Your task to perform on an android device: search for starred emails in the gmail app Image 0: 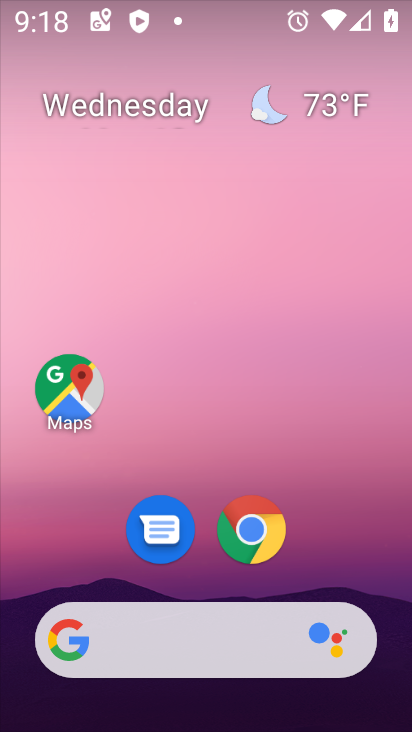
Step 0: drag from (401, 576) to (381, 357)
Your task to perform on an android device: search for starred emails in the gmail app Image 1: 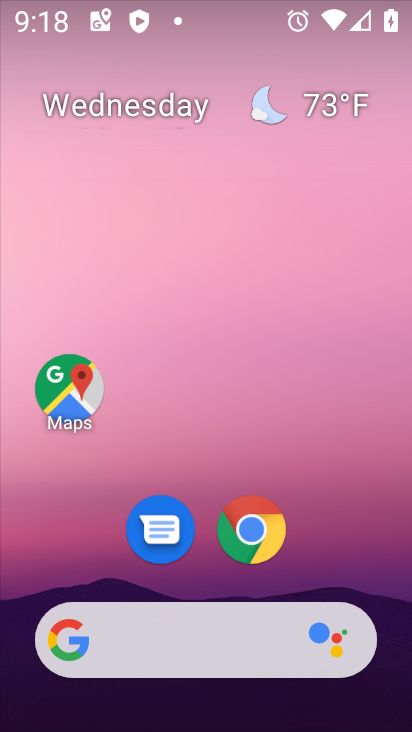
Step 1: drag from (341, 528) to (336, 235)
Your task to perform on an android device: search for starred emails in the gmail app Image 2: 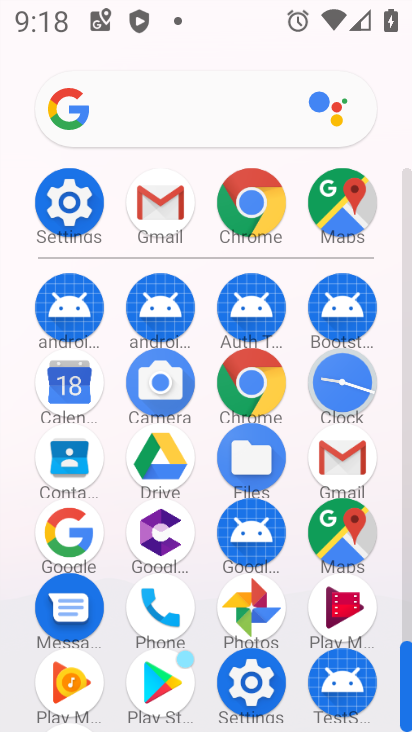
Step 2: click (348, 482)
Your task to perform on an android device: search for starred emails in the gmail app Image 3: 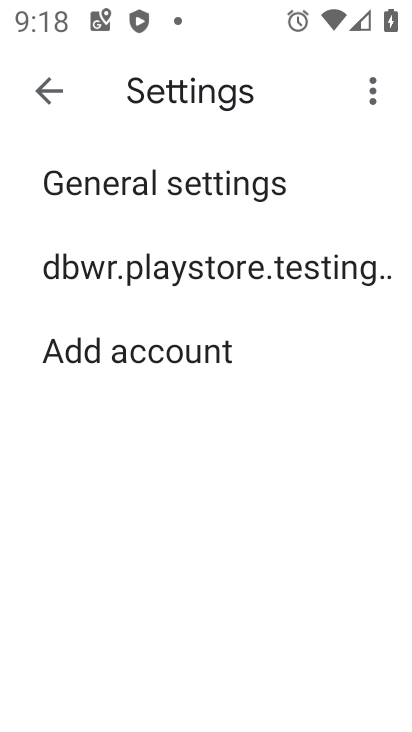
Step 3: click (52, 98)
Your task to perform on an android device: search for starred emails in the gmail app Image 4: 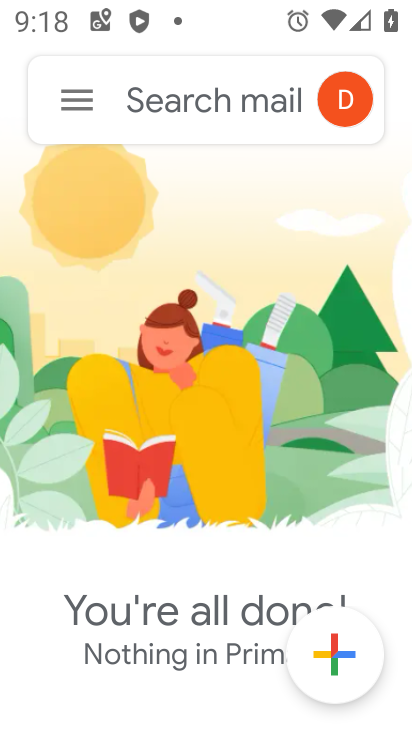
Step 4: click (79, 113)
Your task to perform on an android device: search for starred emails in the gmail app Image 5: 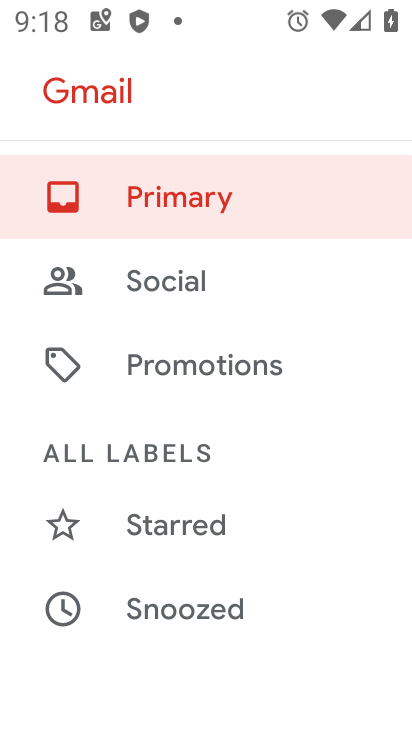
Step 5: drag from (314, 458) to (314, 403)
Your task to perform on an android device: search for starred emails in the gmail app Image 6: 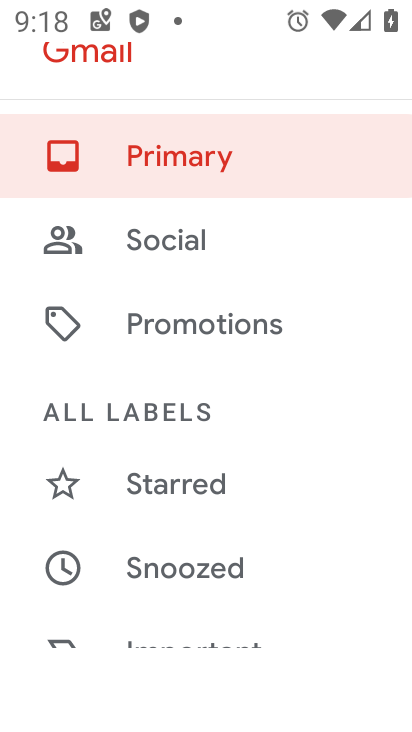
Step 6: drag from (339, 516) to (331, 436)
Your task to perform on an android device: search for starred emails in the gmail app Image 7: 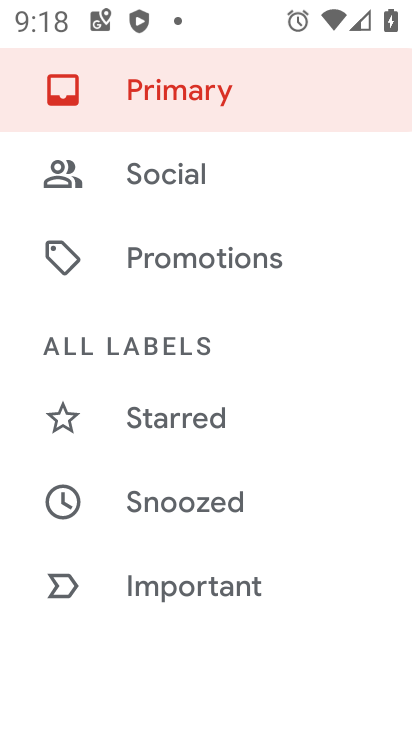
Step 7: drag from (343, 530) to (333, 446)
Your task to perform on an android device: search for starred emails in the gmail app Image 8: 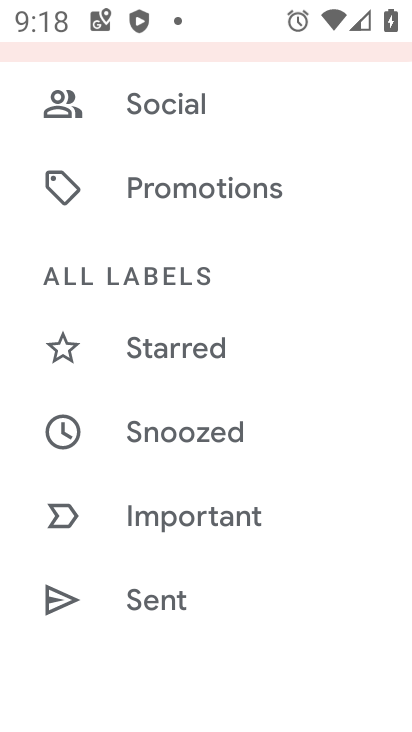
Step 8: drag from (341, 541) to (333, 465)
Your task to perform on an android device: search for starred emails in the gmail app Image 9: 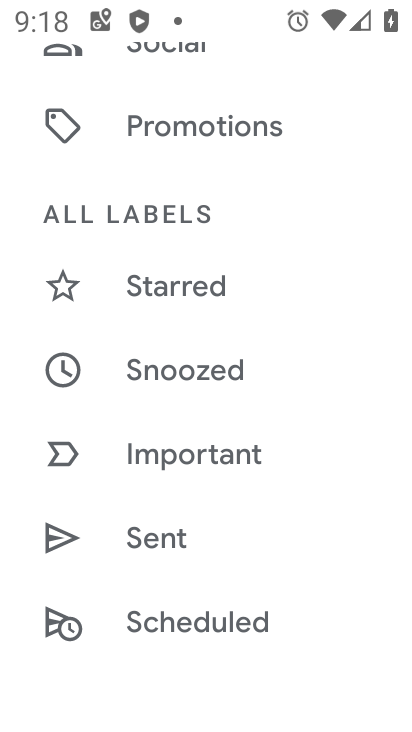
Step 9: drag from (360, 544) to (339, 461)
Your task to perform on an android device: search for starred emails in the gmail app Image 10: 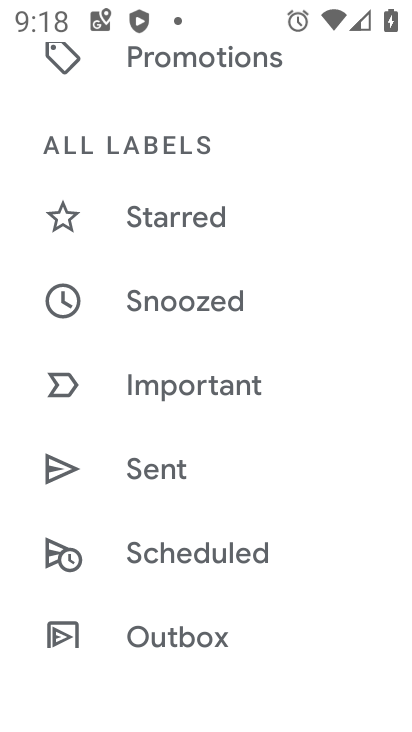
Step 10: drag from (343, 576) to (337, 483)
Your task to perform on an android device: search for starred emails in the gmail app Image 11: 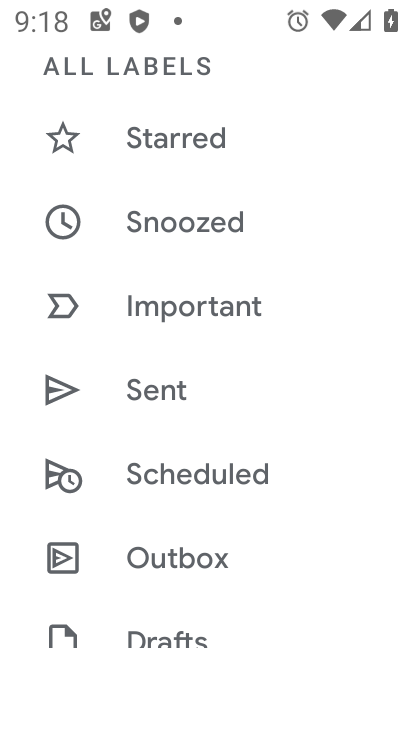
Step 11: drag from (352, 577) to (339, 505)
Your task to perform on an android device: search for starred emails in the gmail app Image 12: 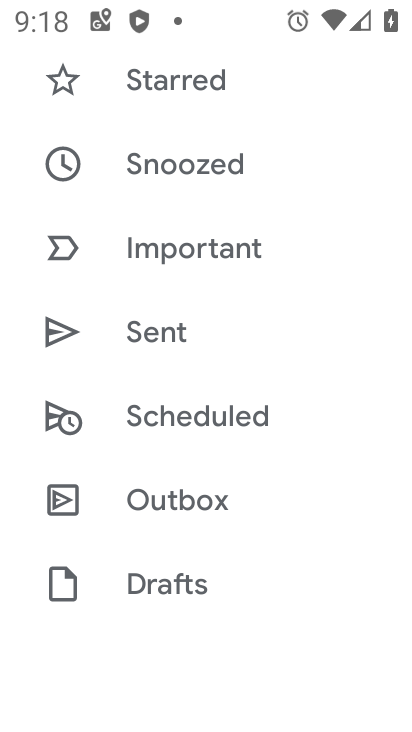
Step 12: drag from (340, 590) to (323, 496)
Your task to perform on an android device: search for starred emails in the gmail app Image 13: 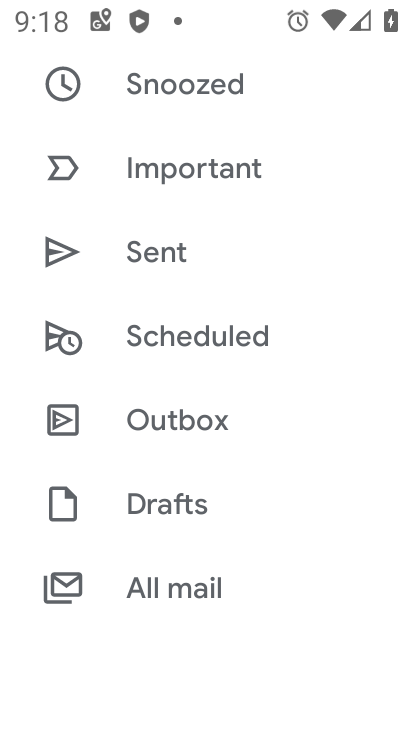
Step 13: drag from (330, 625) to (333, 530)
Your task to perform on an android device: search for starred emails in the gmail app Image 14: 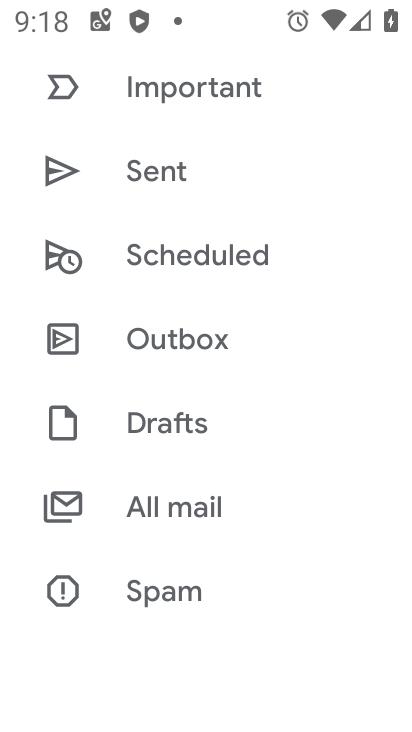
Step 14: drag from (342, 601) to (339, 511)
Your task to perform on an android device: search for starred emails in the gmail app Image 15: 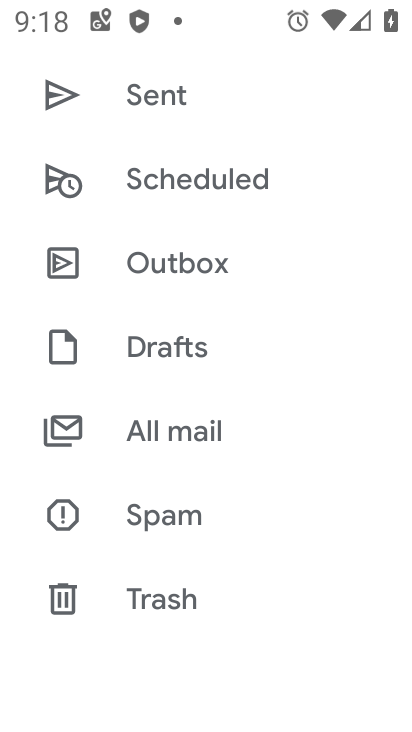
Step 15: drag from (357, 593) to (339, 481)
Your task to perform on an android device: search for starred emails in the gmail app Image 16: 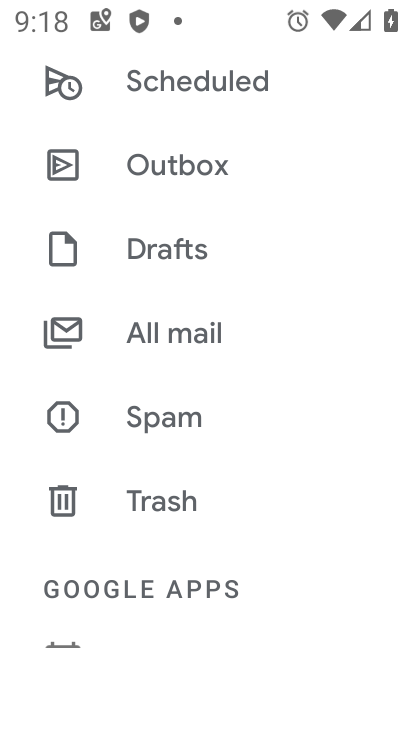
Step 16: drag from (329, 602) to (323, 482)
Your task to perform on an android device: search for starred emails in the gmail app Image 17: 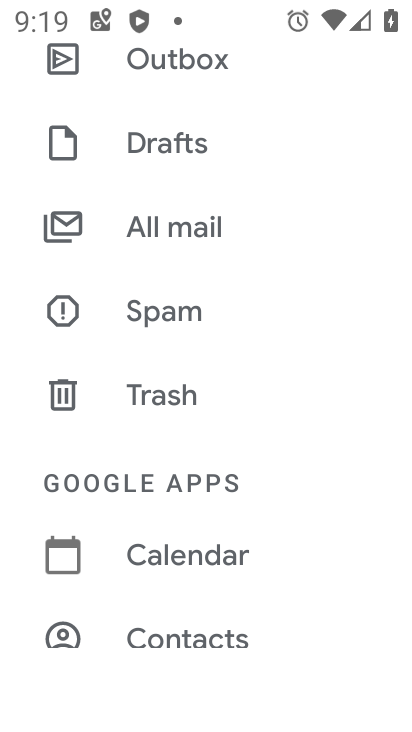
Step 17: drag from (325, 591) to (320, 524)
Your task to perform on an android device: search for starred emails in the gmail app Image 18: 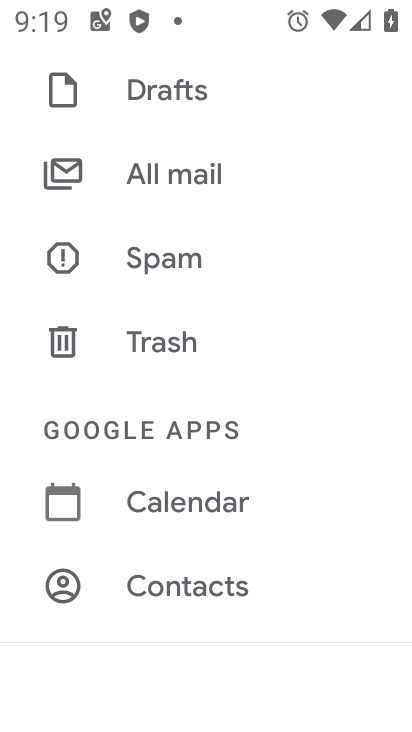
Step 18: drag from (342, 551) to (339, 481)
Your task to perform on an android device: search for starred emails in the gmail app Image 19: 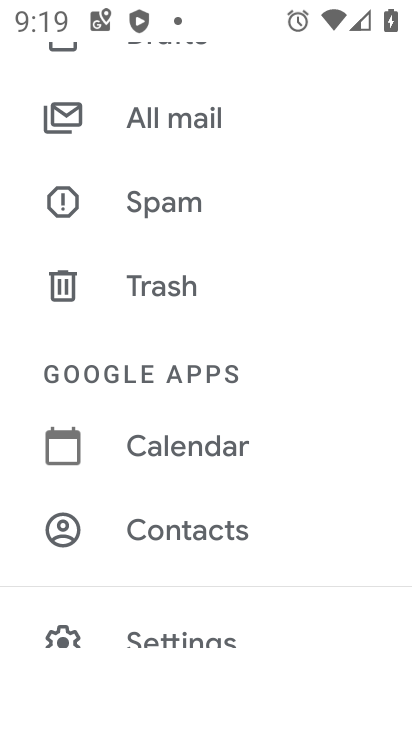
Step 19: drag from (345, 330) to (346, 508)
Your task to perform on an android device: search for starred emails in the gmail app Image 20: 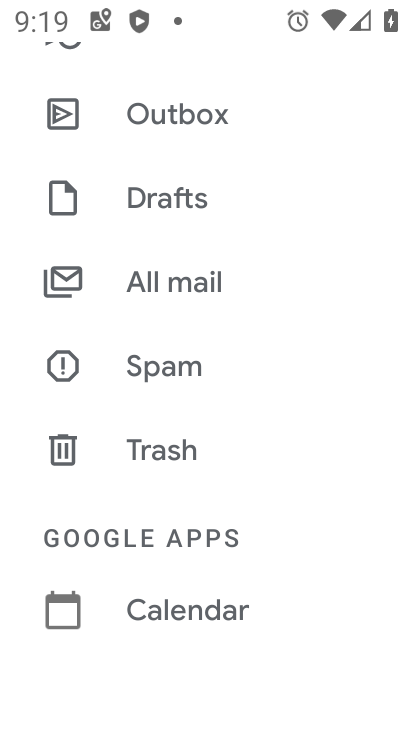
Step 20: drag from (344, 318) to (350, 402)
Your task to perform on an android device: search for starred emails in the gmail app Image 21: 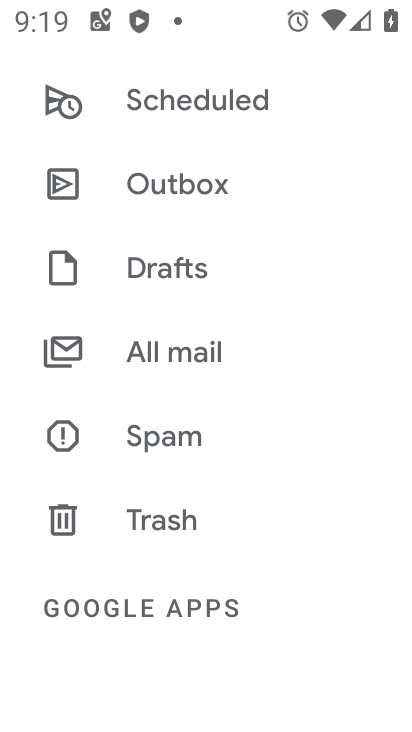
Step 21: drag from (331, 326) to (340, 445)
Your task to perform on an android device: search for starred emails in the gmail app Image 22: 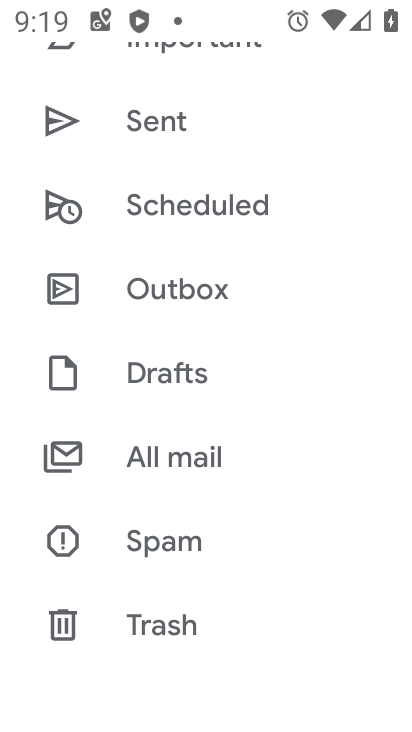
Step 22: drag from (324, 322) to (334, 378)
Your task to perform on an android device: search for starred emails in the gmail app Image 23: 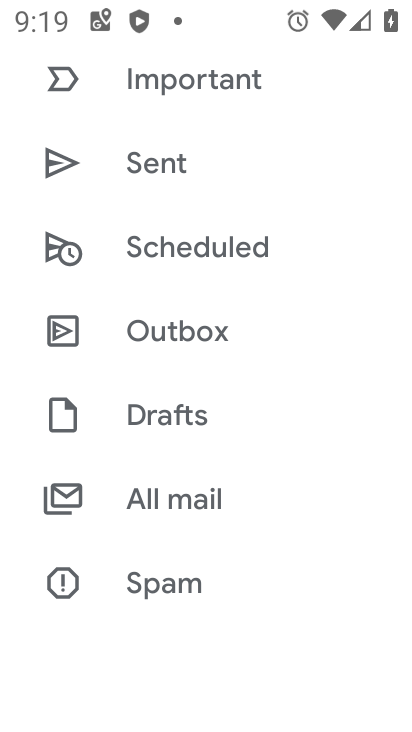
Step 23: drag from (321, 223) to (338, 318)
Your task to perform on an android device: search for starred emails in the gmail app Image 24: 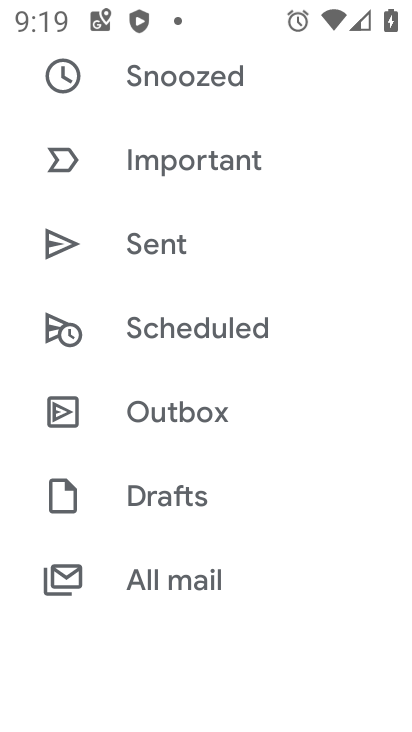
Step 24: drag from (333, 228) to (346, 340)
Your task to perform on an android device: search for starred emails in the gmail app Image 25: 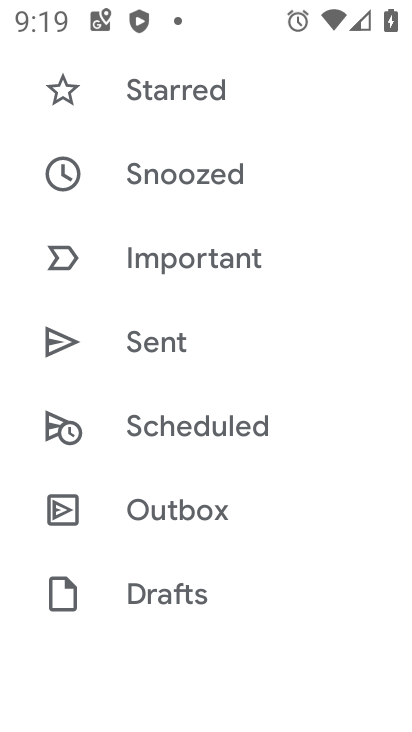
Step 25: drag from (340, 185) to (349, 323)
Your task to perform on an android device: search for starred emails in the gmail app Image 26: 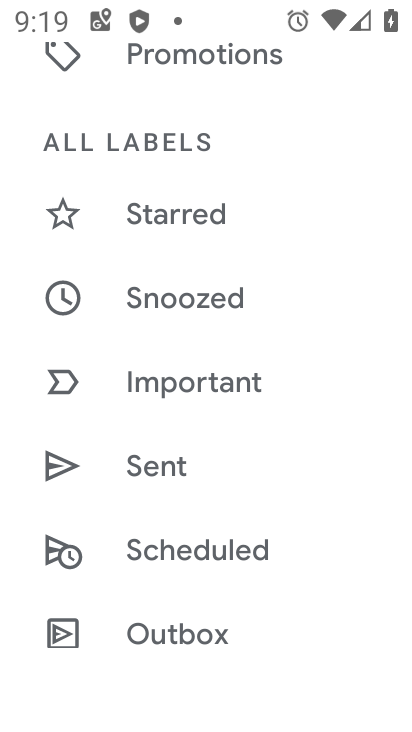
Step 26: drag from (323, 211) to (336, 296)
Your task to perform on an android device: search for starred emails in the gmail app Image 27: 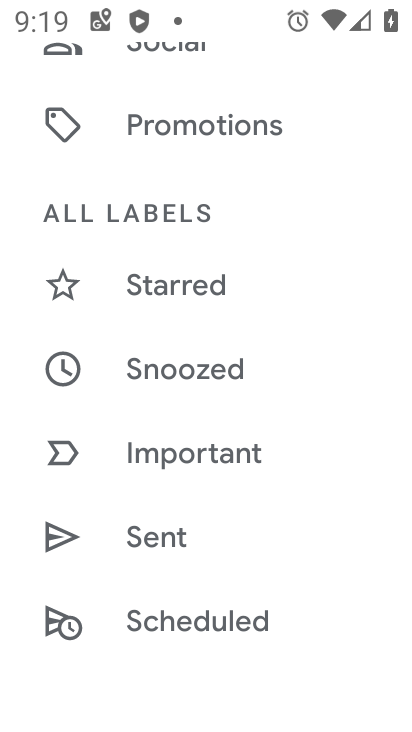
Step 27: click (224, 295)
Your task to perform on an android device: search for starred emails in the gmail app Image 28: 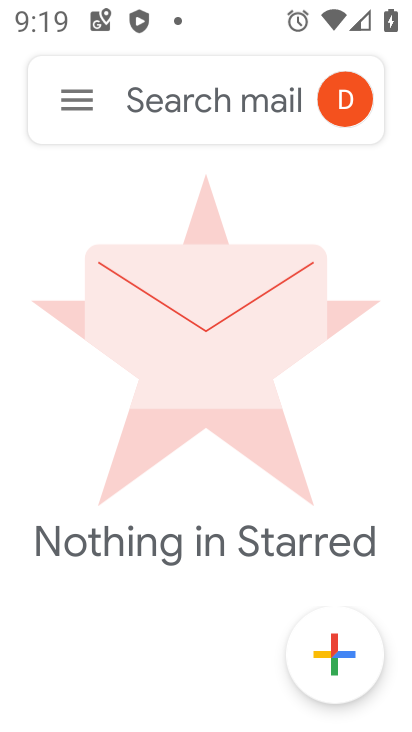
Step 28: task complete